Your task to perform on an android device: Go to Google maps Image 0: 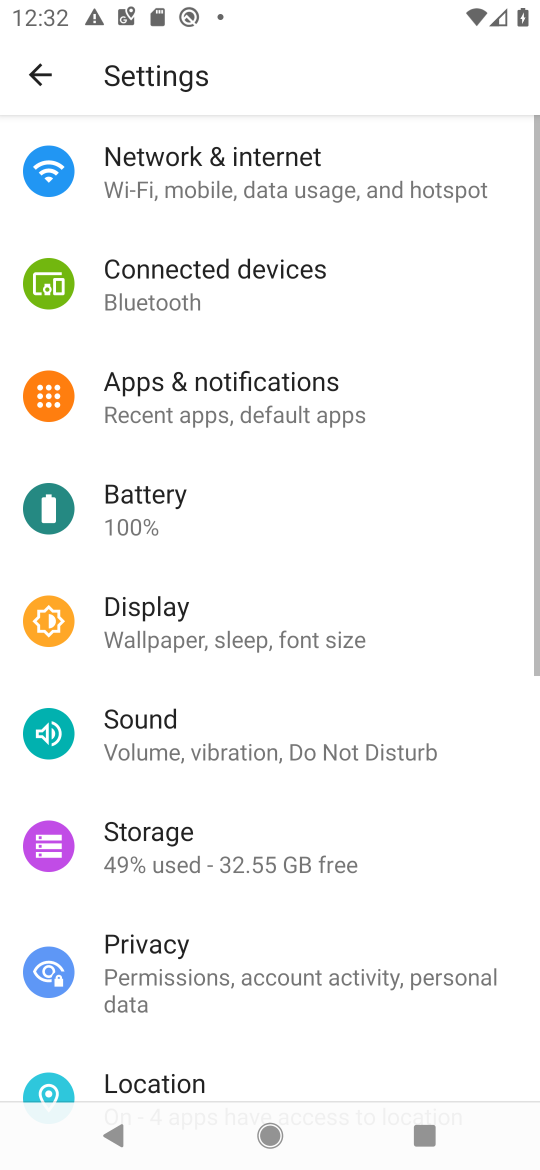
Step 0: press home button
Your task to perform on an android device: Go to Google maps Image 1: 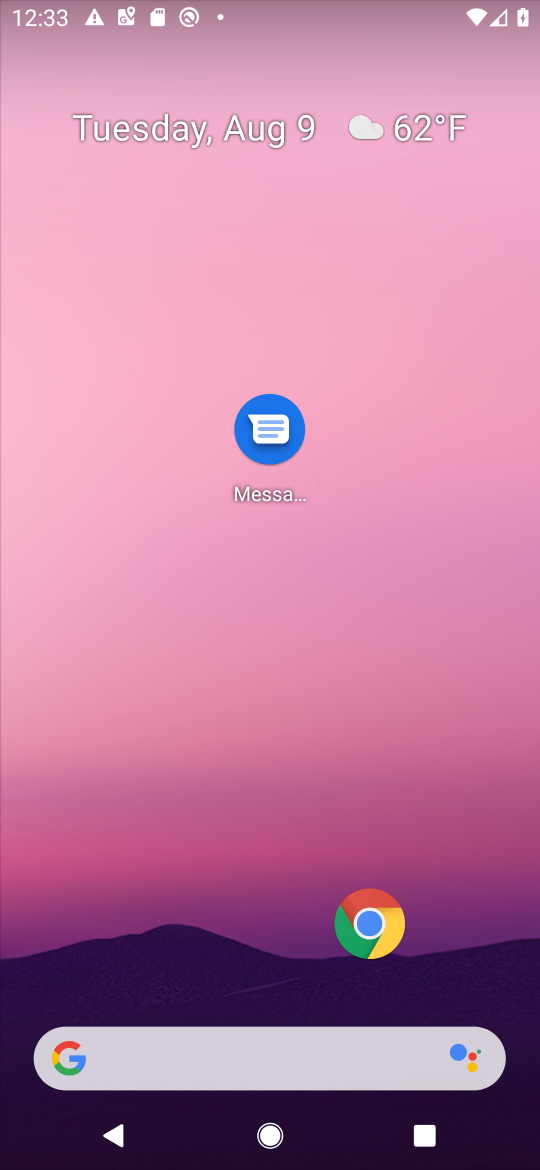
Step 1: drag from (85, 1115) to (379, 95)
Your task to perform on an android device: Go to Google maps Image 2: 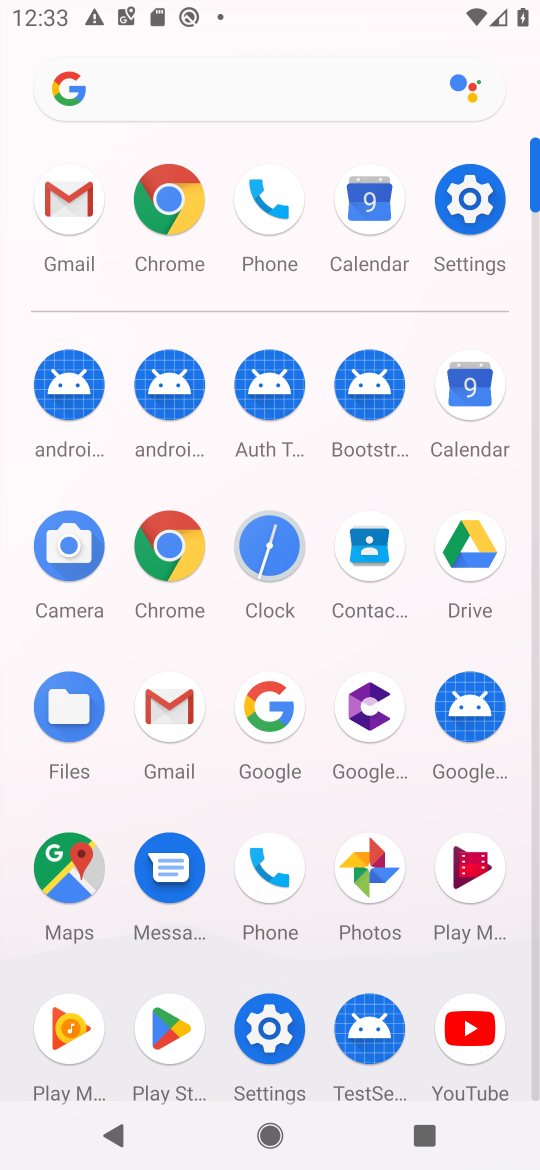
Step 2: click (76, 879)
Your task to perform on an android device: Go to Google maps Image 3: 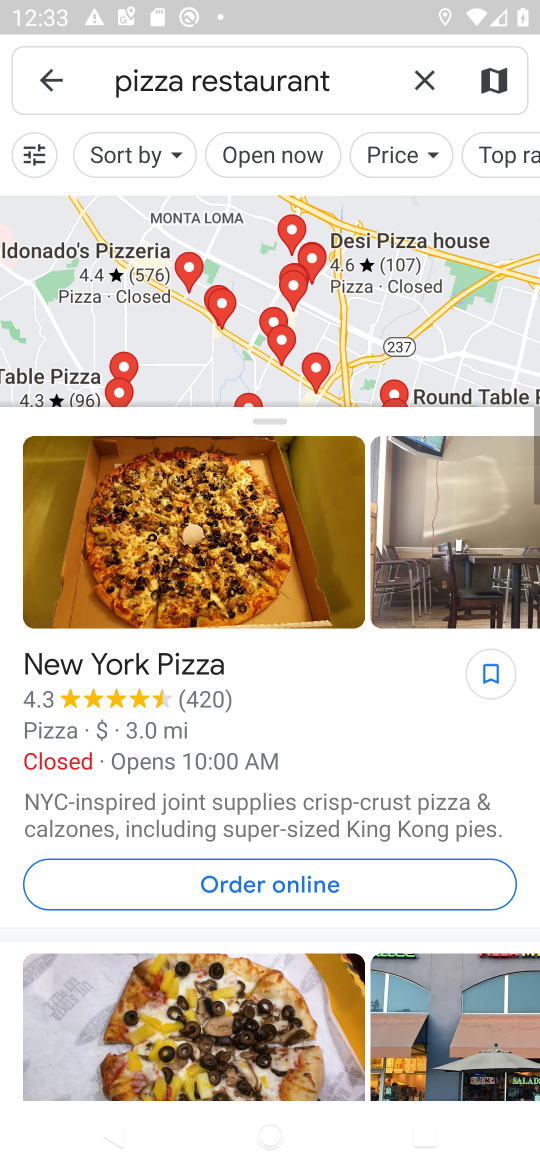
Step 3: click (411, 84)
Your task to perform on an android device: Go to Google maps Image 4: 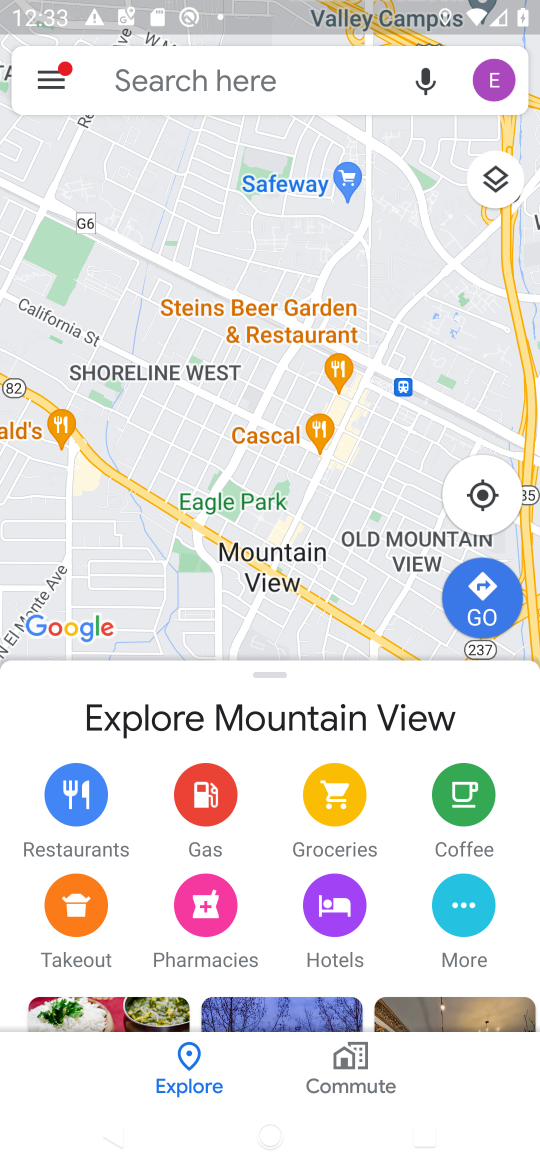
Step 4: task complete